Your task to perform on an android device: install app "Viber Messenger" Image 0: 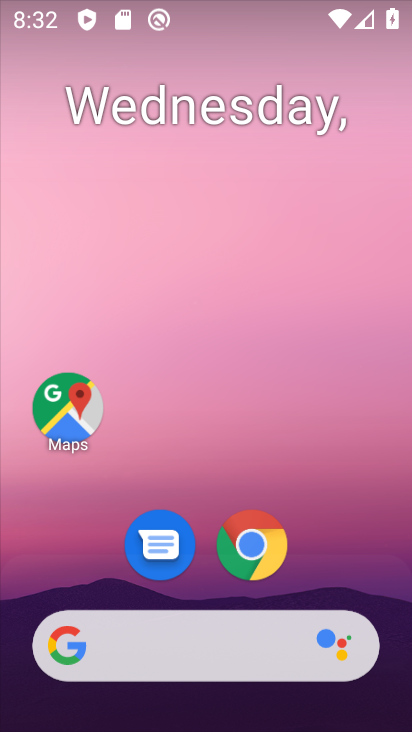
Step 0: drag from (192, 505) to (192, 64)
Your task to perform on an android device: install app "Viber Messenger" Image 1: 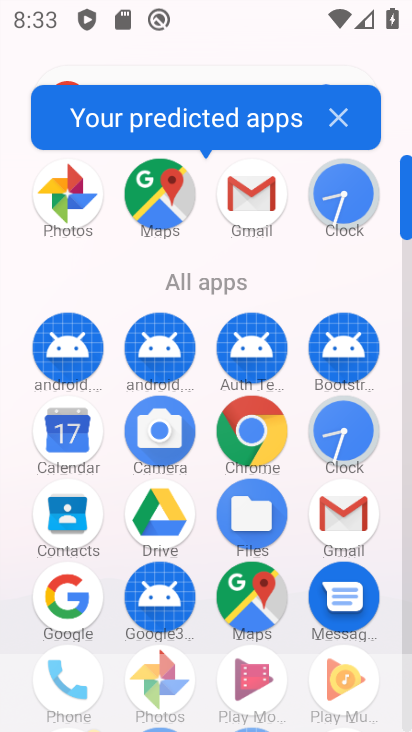
Step 1: drag from (200, 508) to (200, 212)
Your task to perform on an android device: install app "Viber Messenger" Image 2: 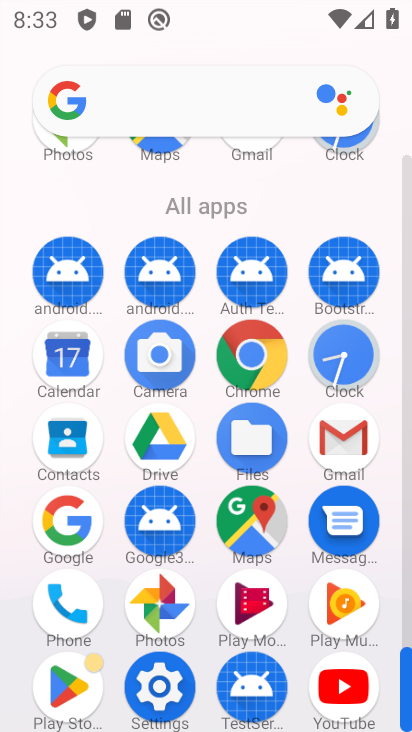
Step 2: click (65, 670)
Your task to perform on an android device: install app "Viber Messenger" Image 3: 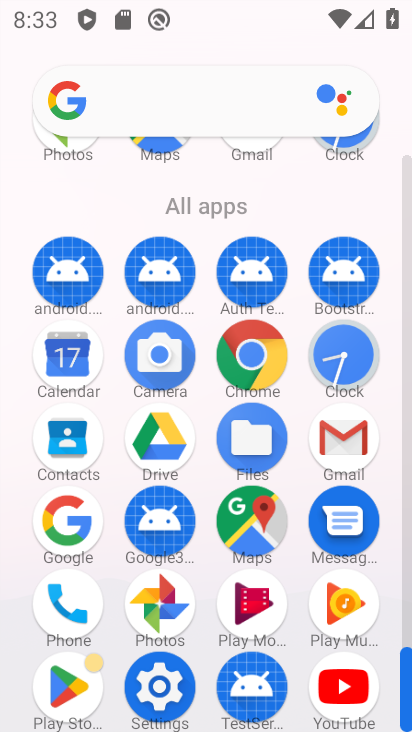
Step 3: click (80, 675)
Your task to perform on an android device: install app "Viber Messenger" Image 4: 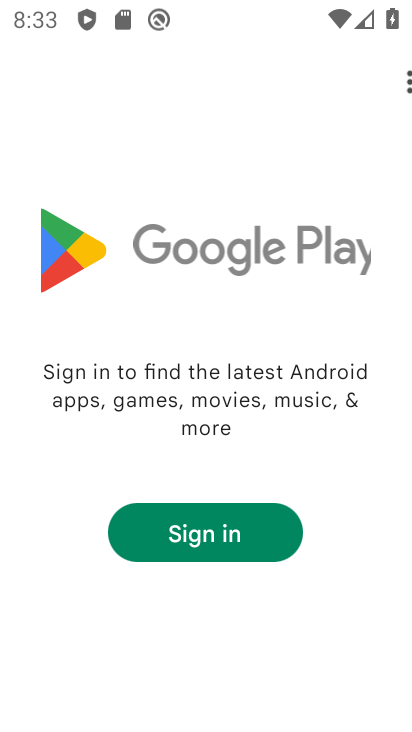
Step 4: click (173, 546)
Your task to perform on an android device: install app "Viber Messenger" Image 5: 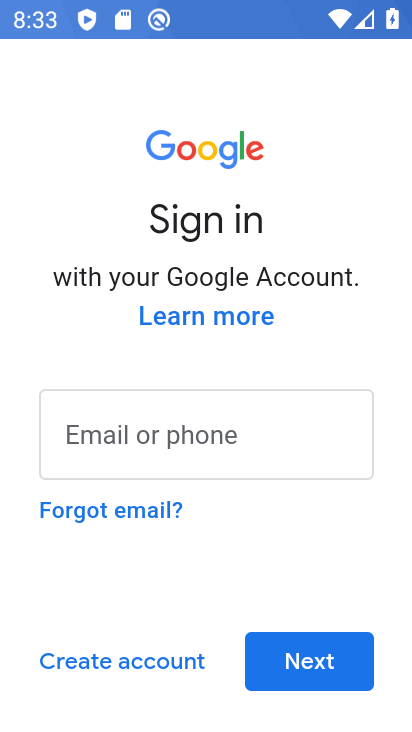
Step 5: task complete